Your task to perform on an android device: When is my next meeting? Image 0: 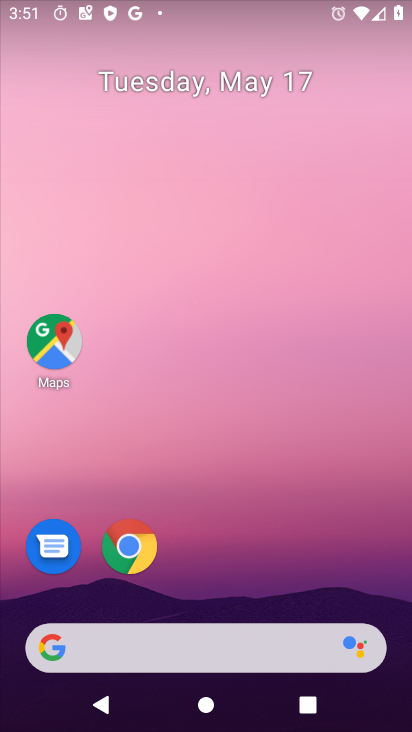
Step 0: drag from (401, 661) to (380, 306)
Your task to perform on an android device: When is my next meeting? Image 1: 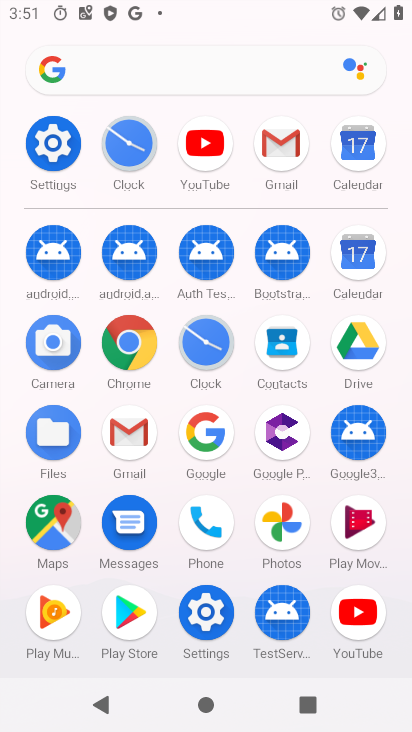
Step 1: click (348, 263)
Your task to perform on an android device: When is my next meeting? Image 2: 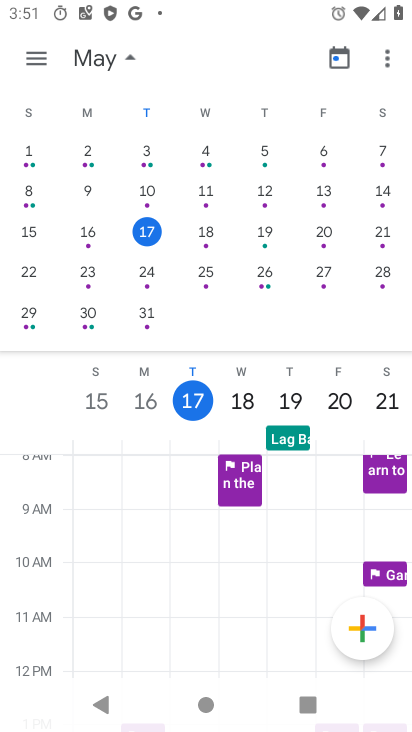
Step 2: click (30, 56)
Your task to perform on an android device: When is my next meeting? Image 3: 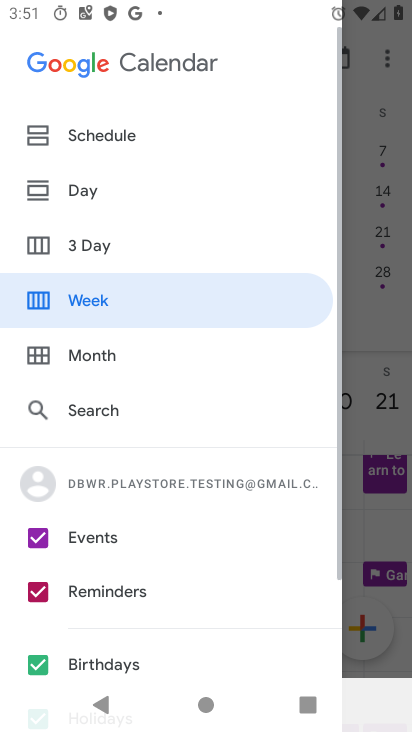
Step 3: click (48, 656)
Your task to perform on an android device: When is my next meeting? Image 4: 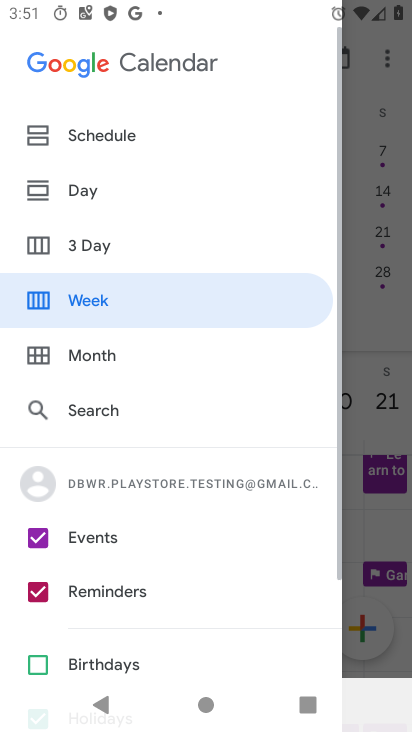
Step 4: drag from (238, 655) to (229, 426)
Your task to perform on an android device: When is my next meeting? Image 5: 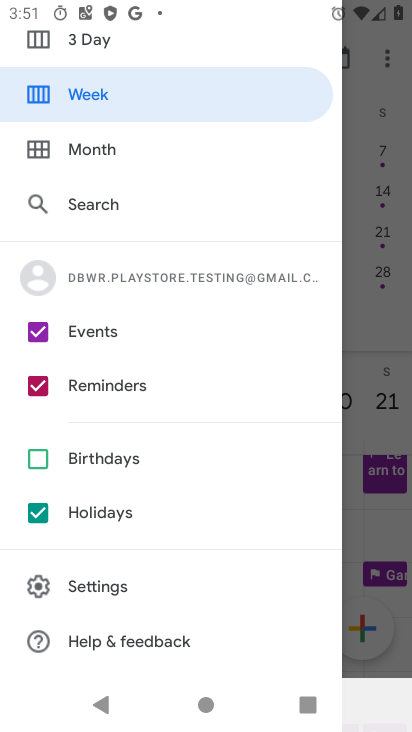
Step 5: click (43, 574)
Your task to perform on an android device: When is my next meeting? Image 6: 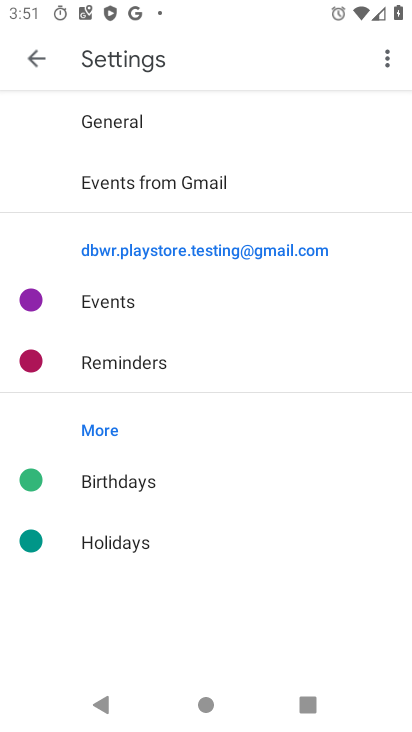
Step 6: click (33, 425)
Your task to perform on an android device: When is my next meeting? Image 7: 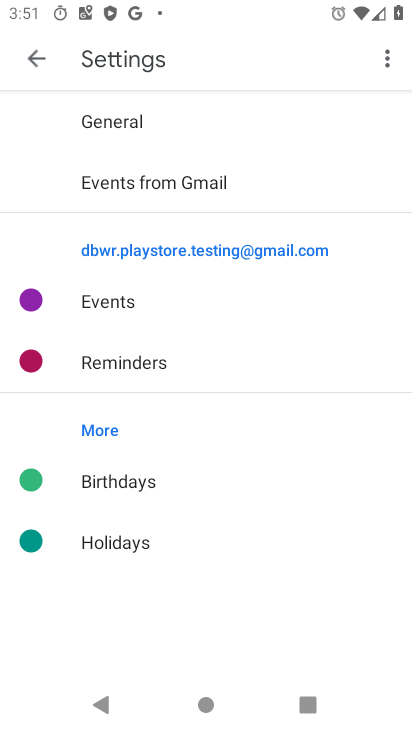
Step 7: press back button
Your task to perform on an android device: When is my next meeting? Image 8: 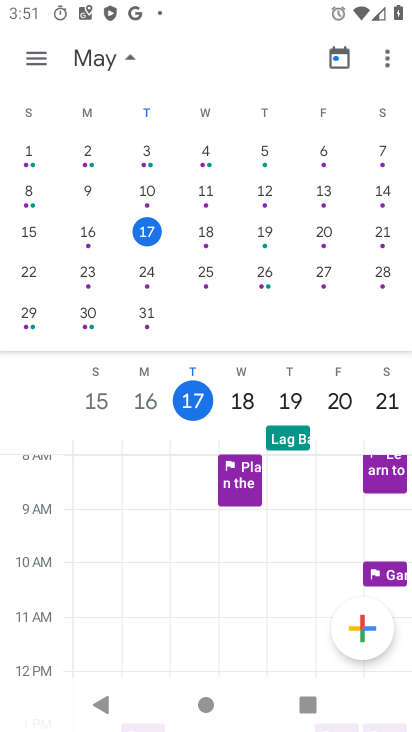
Step 8: drag from (4, 308) to (164, 287)
Your task to perform on an android device: When is my next meeting? Image 9: 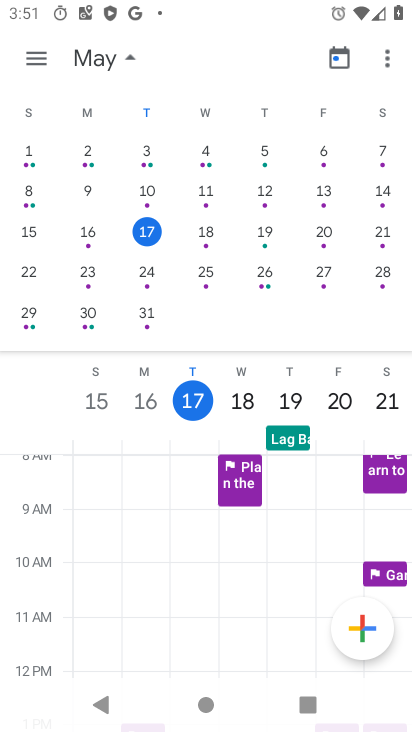
Step 9: click (27, 54)
Your task to perform on an android device: When is my next meeting? Image 10: 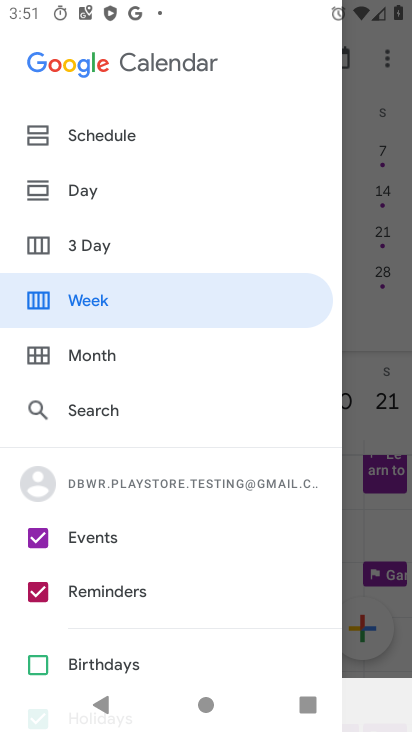
Step 10: drag from (190, 602) to (198, 393)
Your task to perform on an android device: When is my next meeting? Image 11: 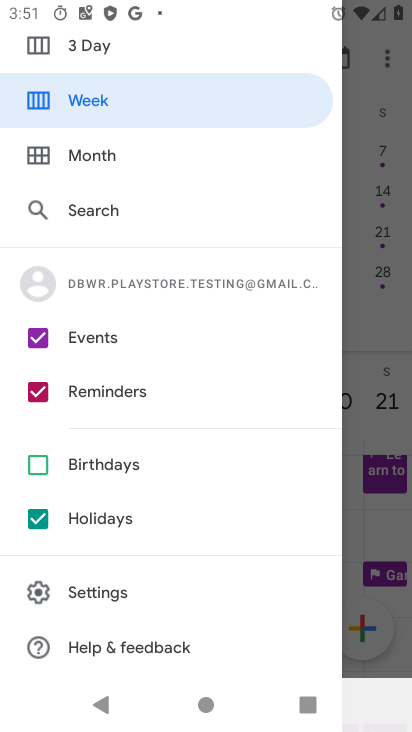
Step 11: click (39, 512)
Your task to perform on an android device: When is my next meeting? Image 12: 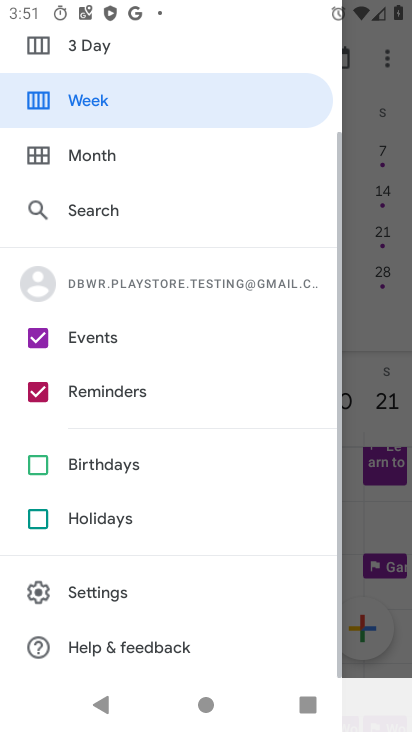
Step 12: click (41, 397)
Your task to perform on an android device: When is my next meeting? Image 13: 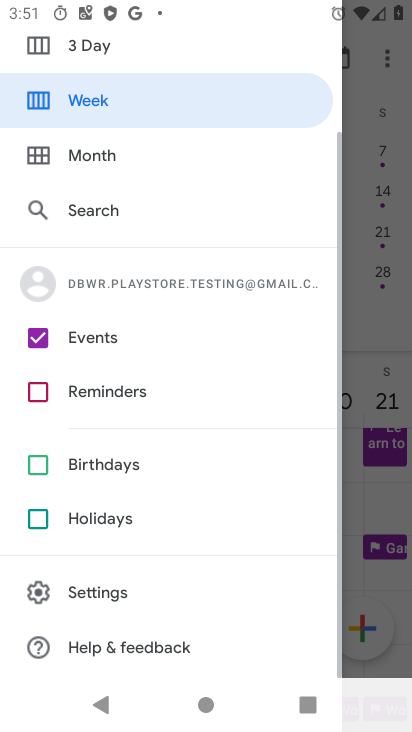
Step 13: drag from (236, 324) to (255, 486)
Your task to perform on an android device: When is my next meeting? Image 14: 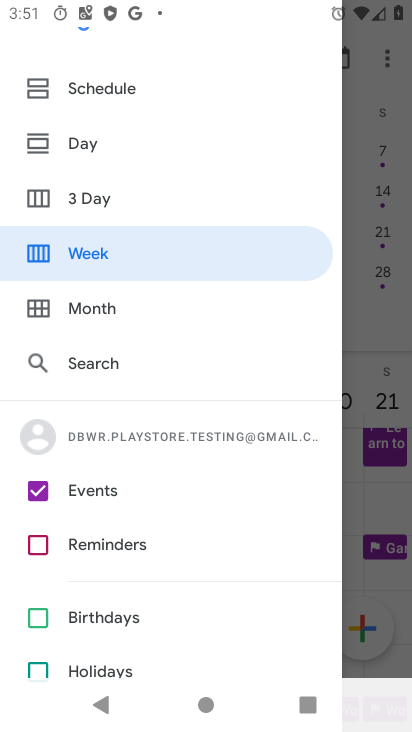
Step 14: drag from (130, 103) to (164, 325)
Your task to perform on an android device: When is my next meeting? Image 15: 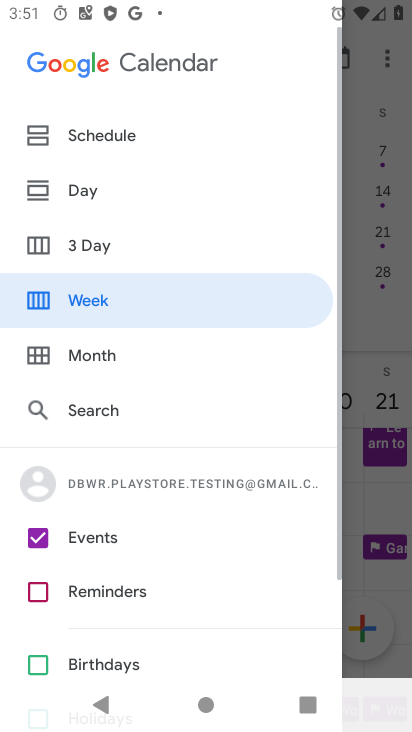
Step 15: click (76, 132)
Your task to perform on an android device: When is my next meeting? Image 16: 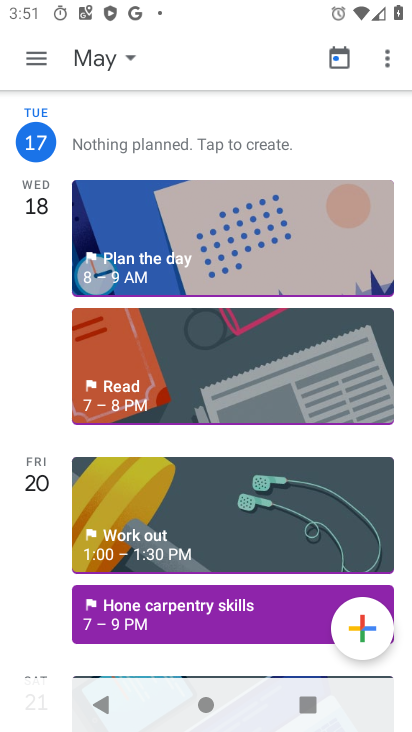
Step 16: task complete